Your task to perform on an android device: Go to eBay Image 0: 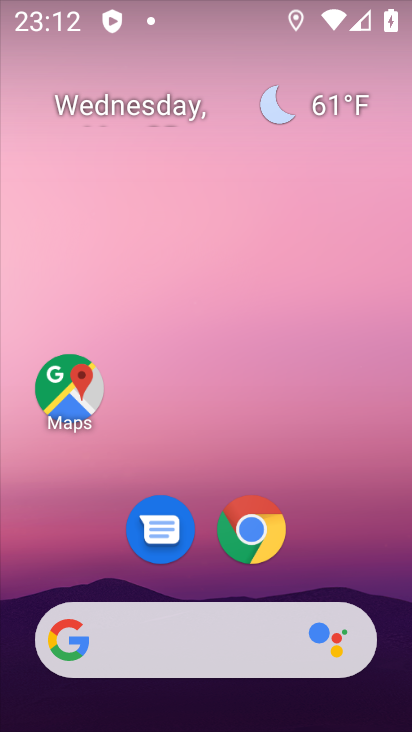
Step 0: drag from (375, 563) to (368, 163)
Your task to perform on an android device: Go to eBay Image 1: 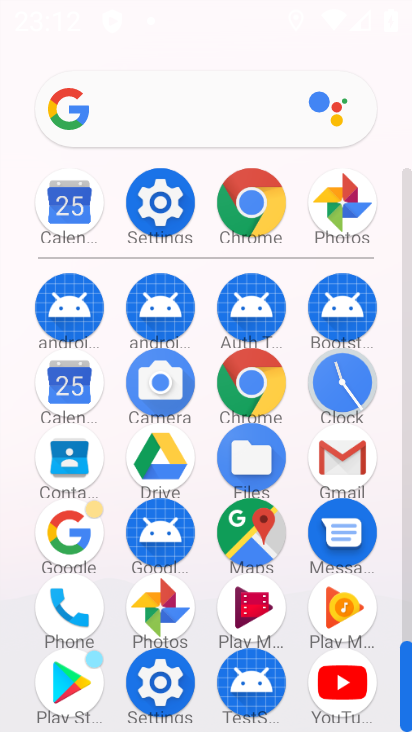
Step 1: click (277, 401)
Your task to perform on an android device: Go to eBay Image 2: 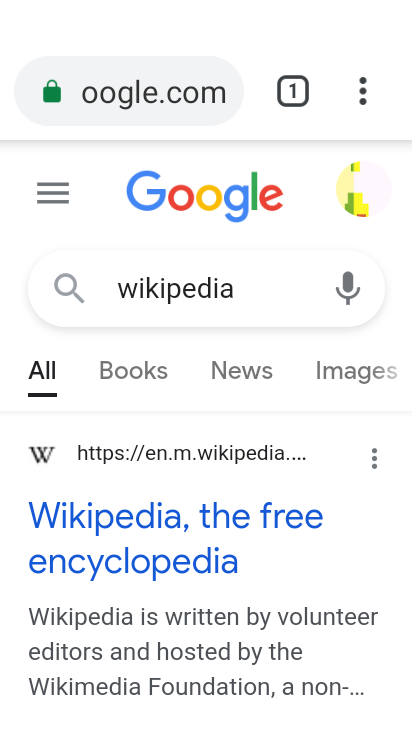
Step 2: click (205, 98)
Your task to perform on an android device: Go to eBay Image 3: 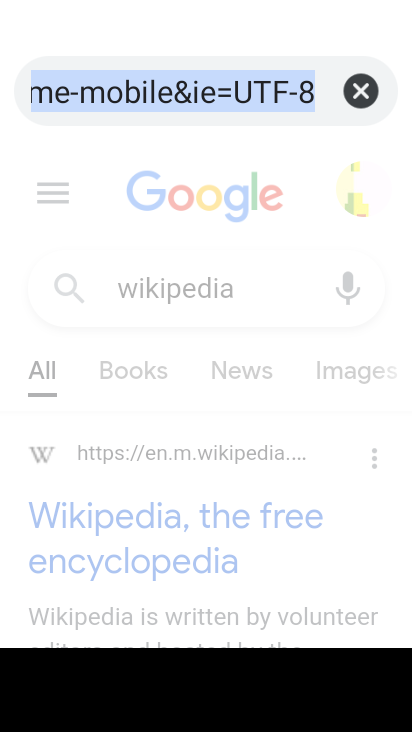
Step 3: click (361, 98)
Your task to perform on an android device: Go to eBay Image 4: 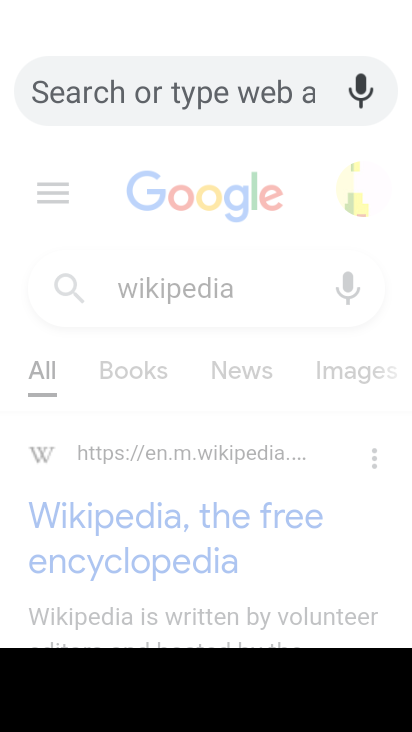
Step 4: type "ebay"
Your task to perform on an android device: Go to eBay Image 5: 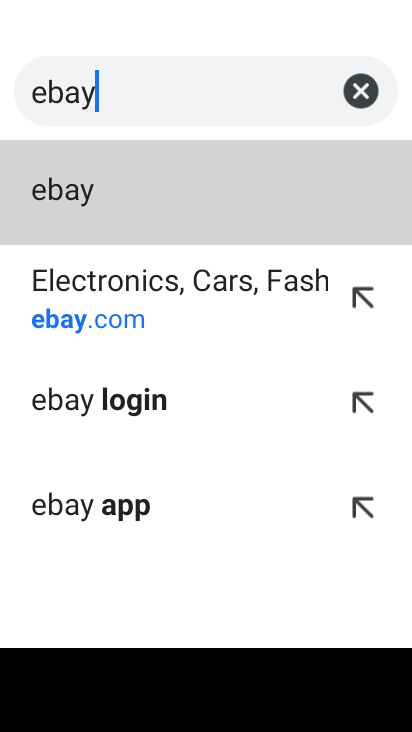
Step 5: click (81, 194)
Your task to perform on an android device: Go to eBay Image 6: 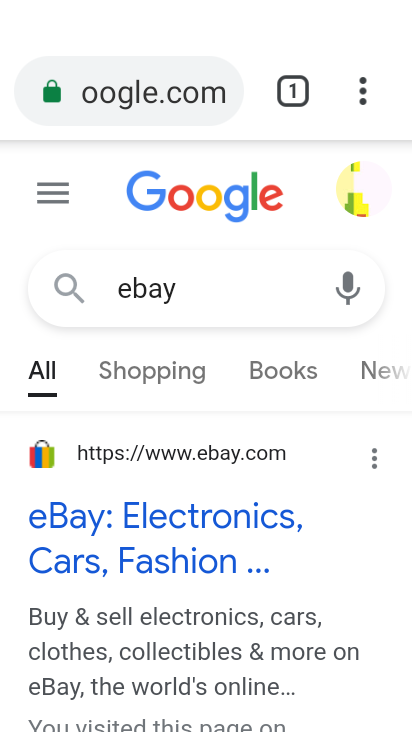
Step 6: task complete